Your task to perform on an android device: Search for the new Jordans on Nike.com Image 0: 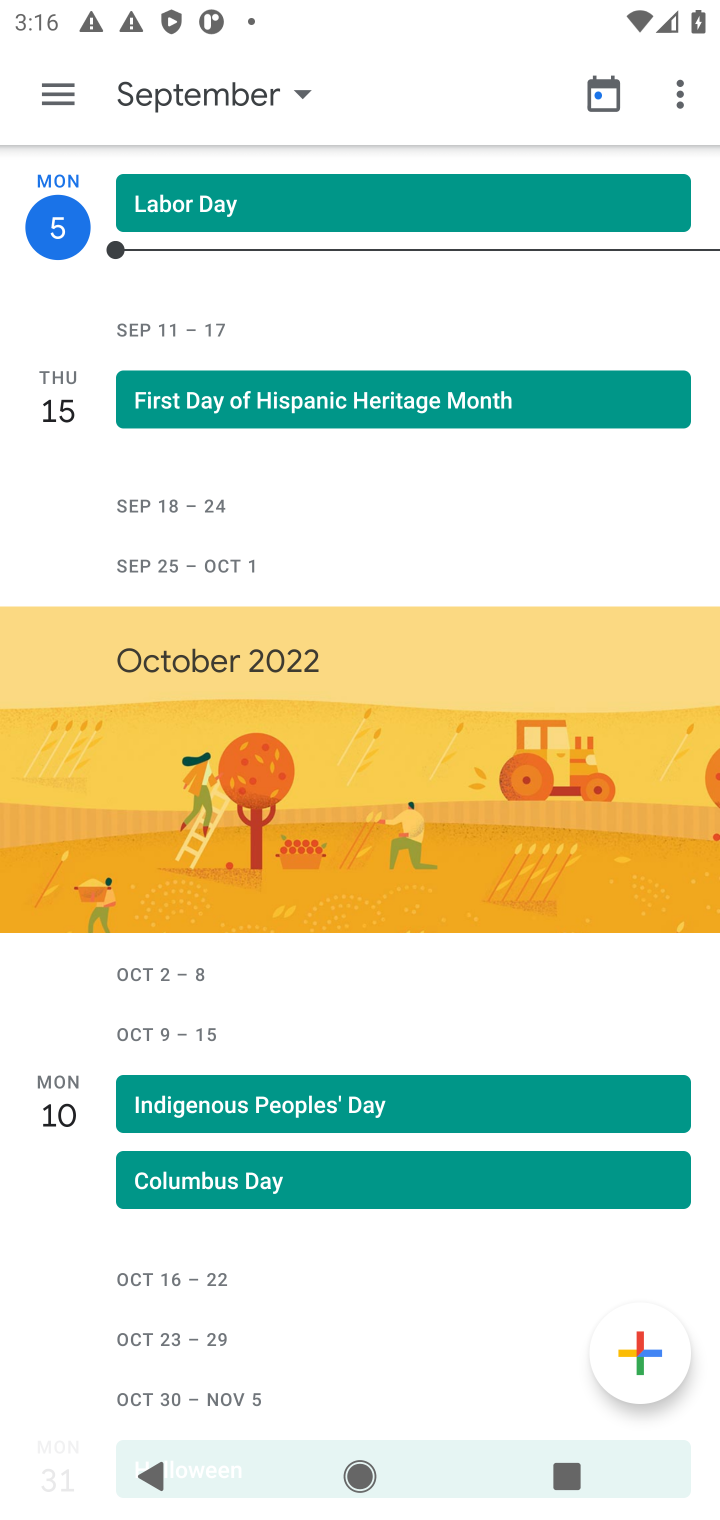
Step 0: press home button
Your task to perform on an android device: Search for the new Jordans on Nike.com Image 1: 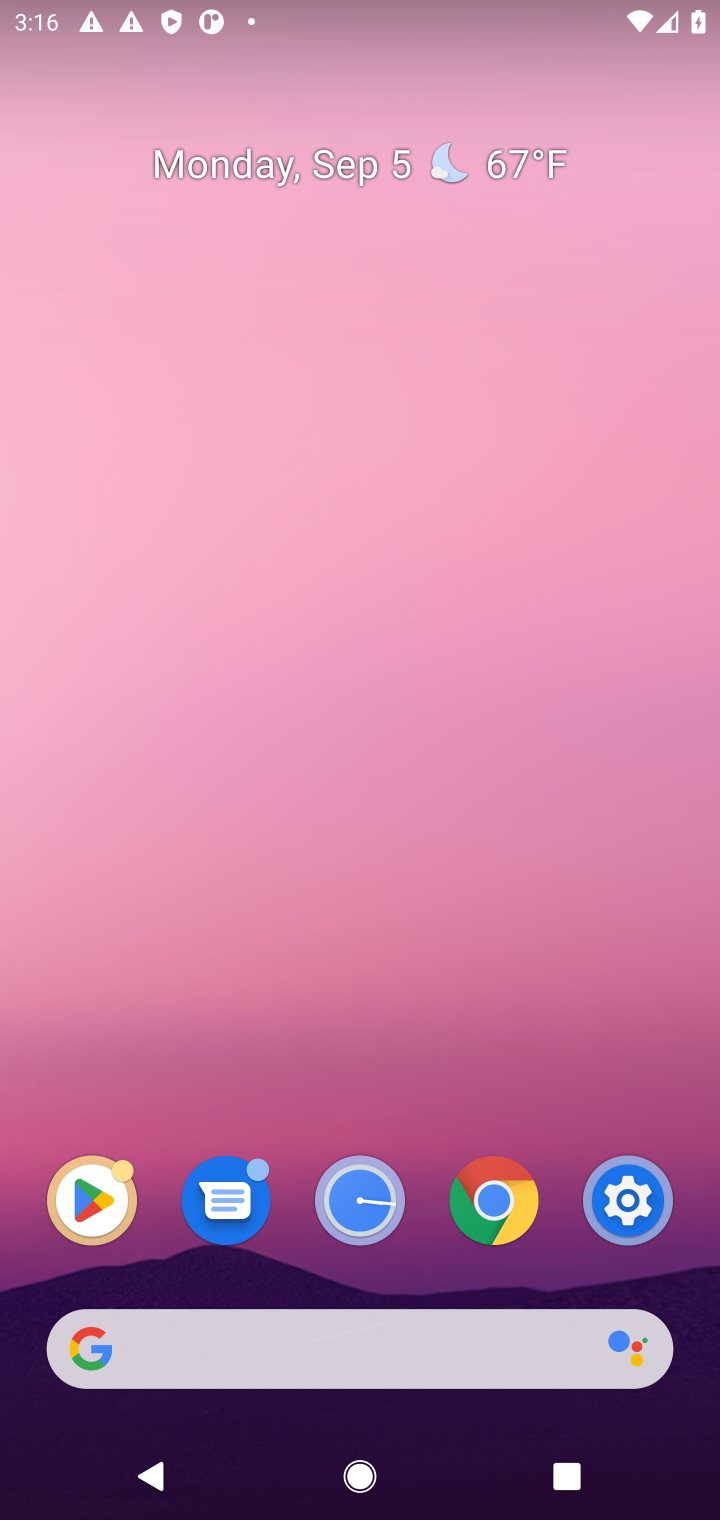
Step 1: click (412, 1351)
Your task to perform on an android device: Search for the new Jordans on Nike.com Image 2: 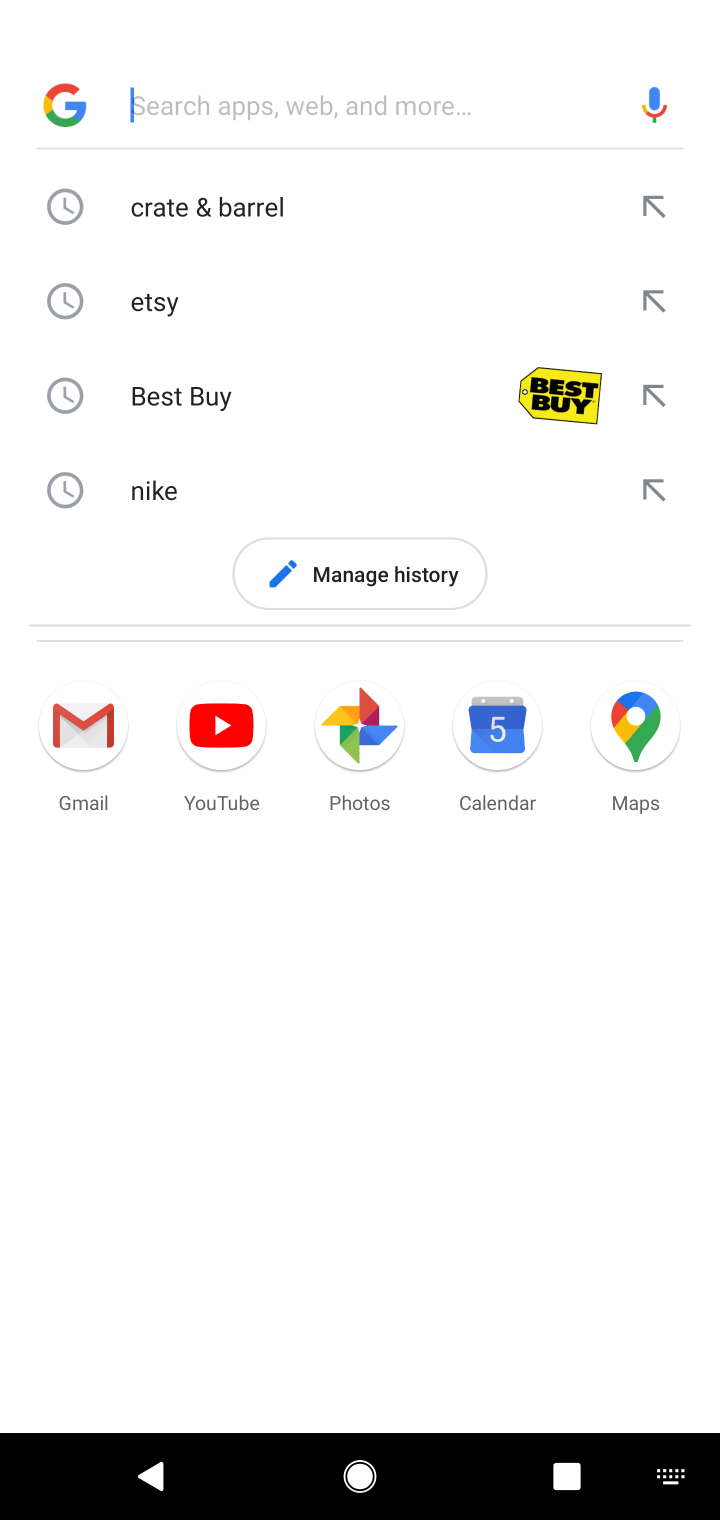
Step 2: type "nike.com"
Your task to perform on an android device: Search for the new Jordans on Nike.com Image 3: 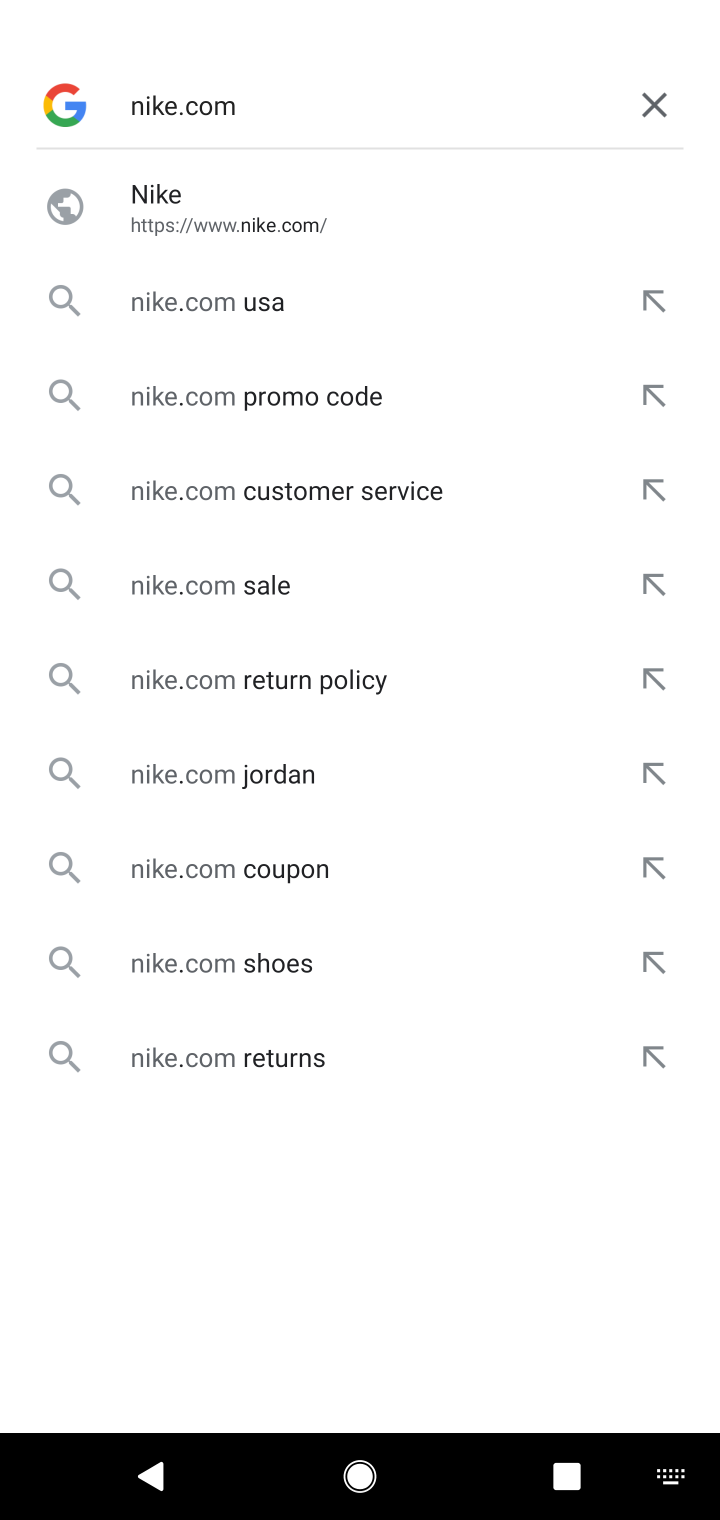
Step 3: click (135, 192)
Your task to perform on an android device: Search for the new Jordans on Nike.com Image 4: 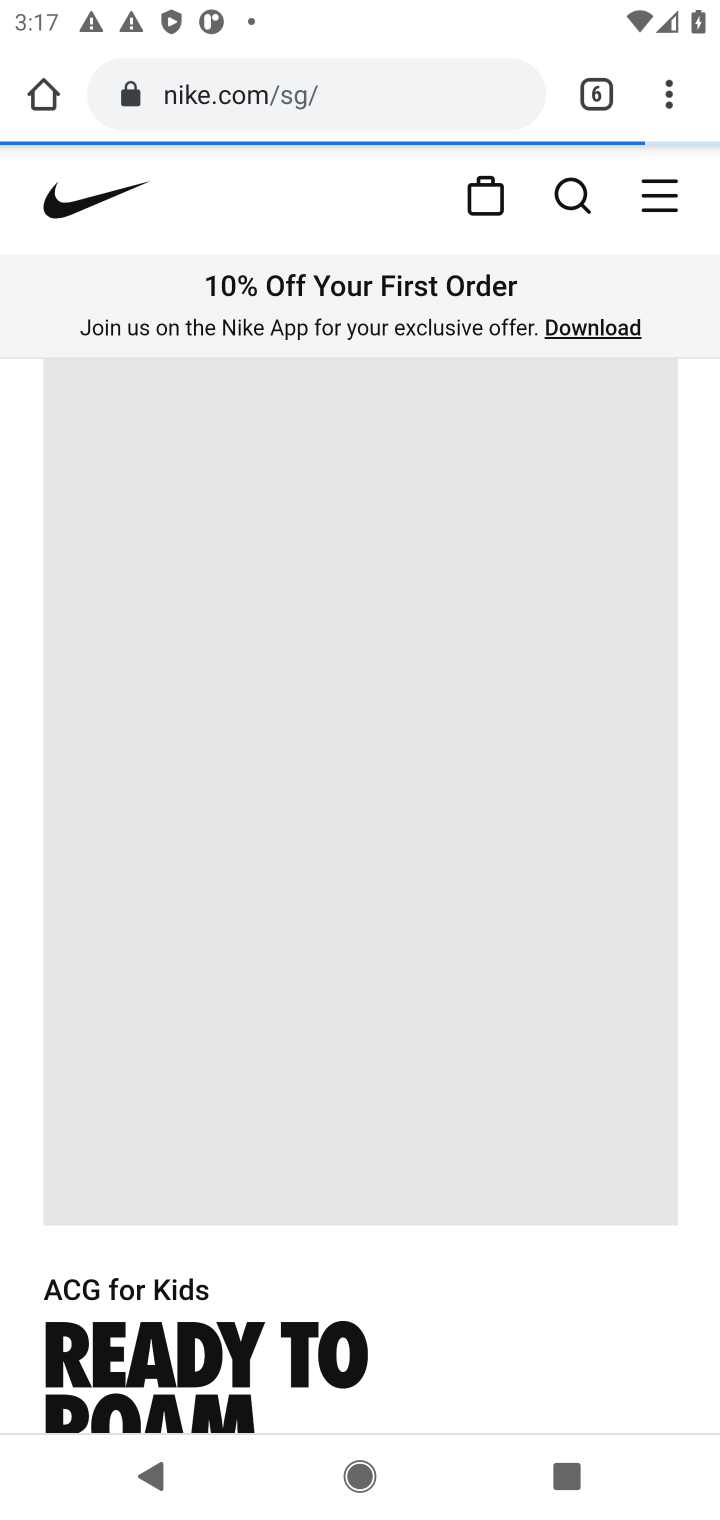
Step 4: click (569, 183)
Your task to perform on an android device: Search for the new Jordans on Nike.com Image 5: 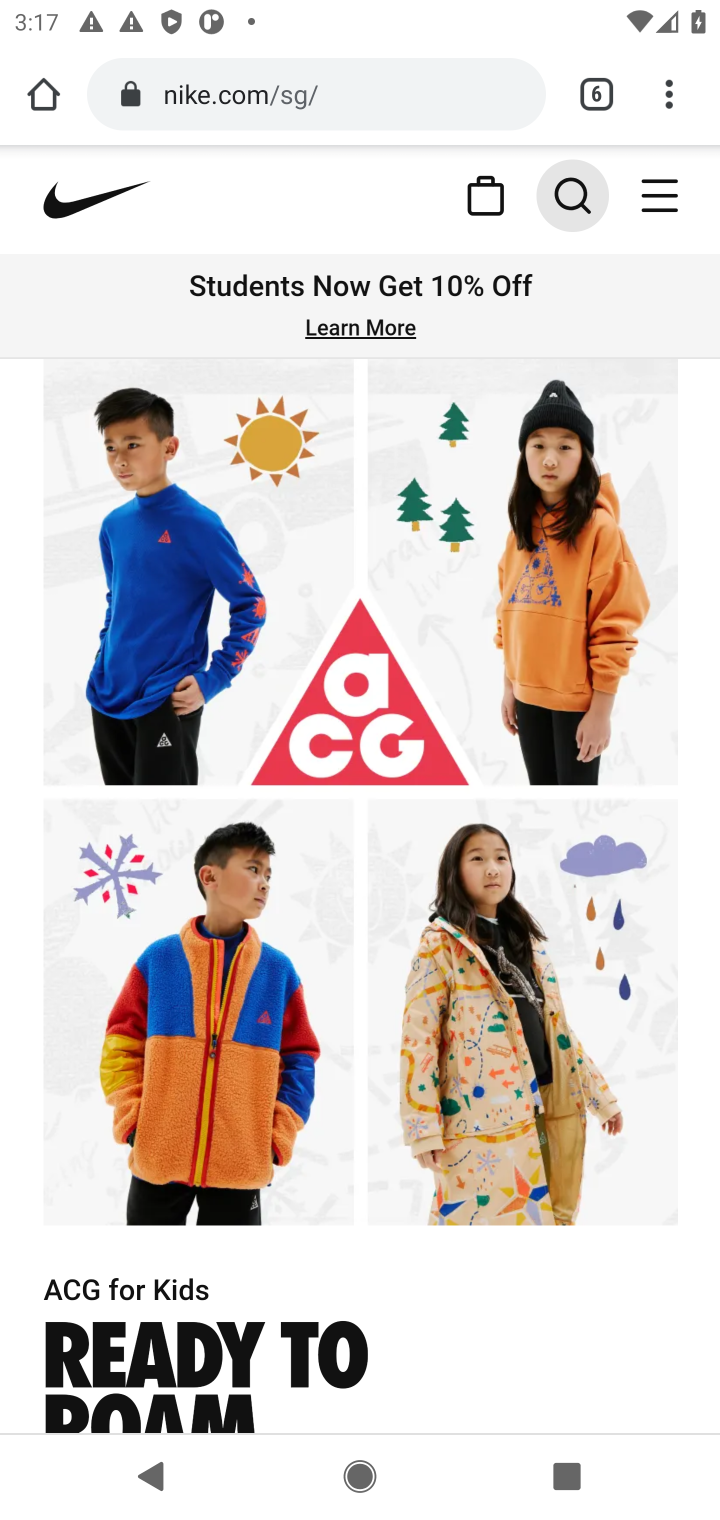
Step 5: click (578, 211)
Your task to perform on an android device: Search for the new Jordans on Nike.com Image 6: 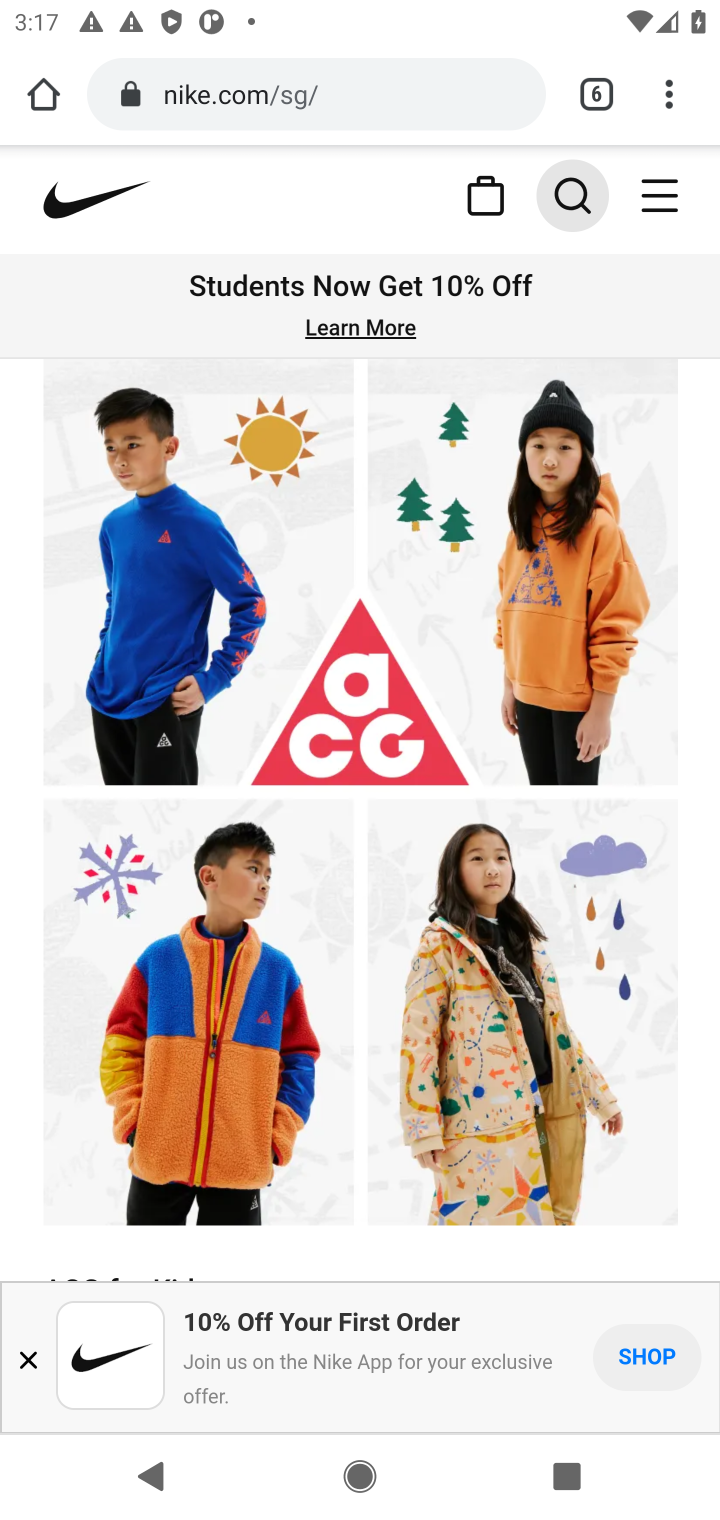
Step 6: click (576, 192)
Your task to perform on an android device: Search for the new Jordans on Nike.com Image 7: 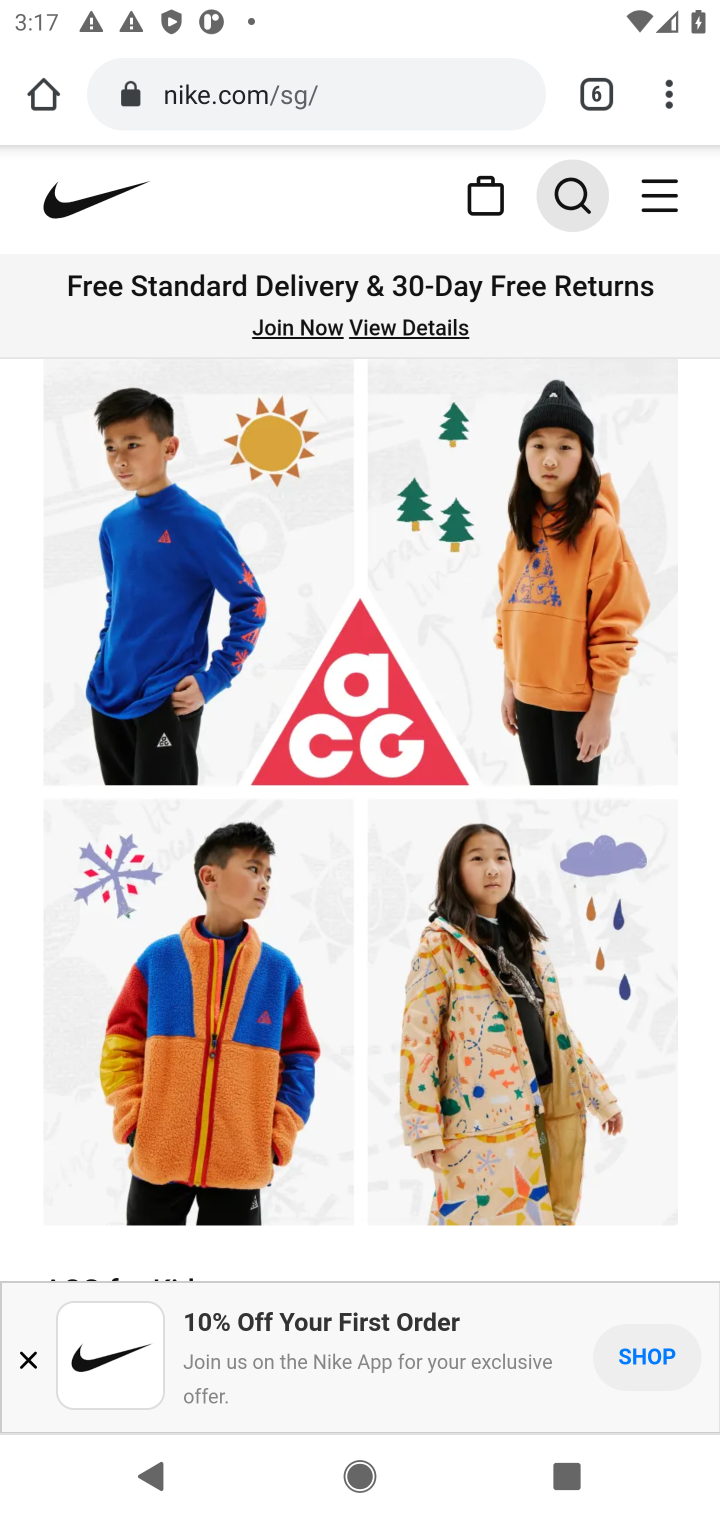
Step 7: click (554, 192)
Your task to perform on an android device: Search for the new Jordans on Nike.com Image 8: 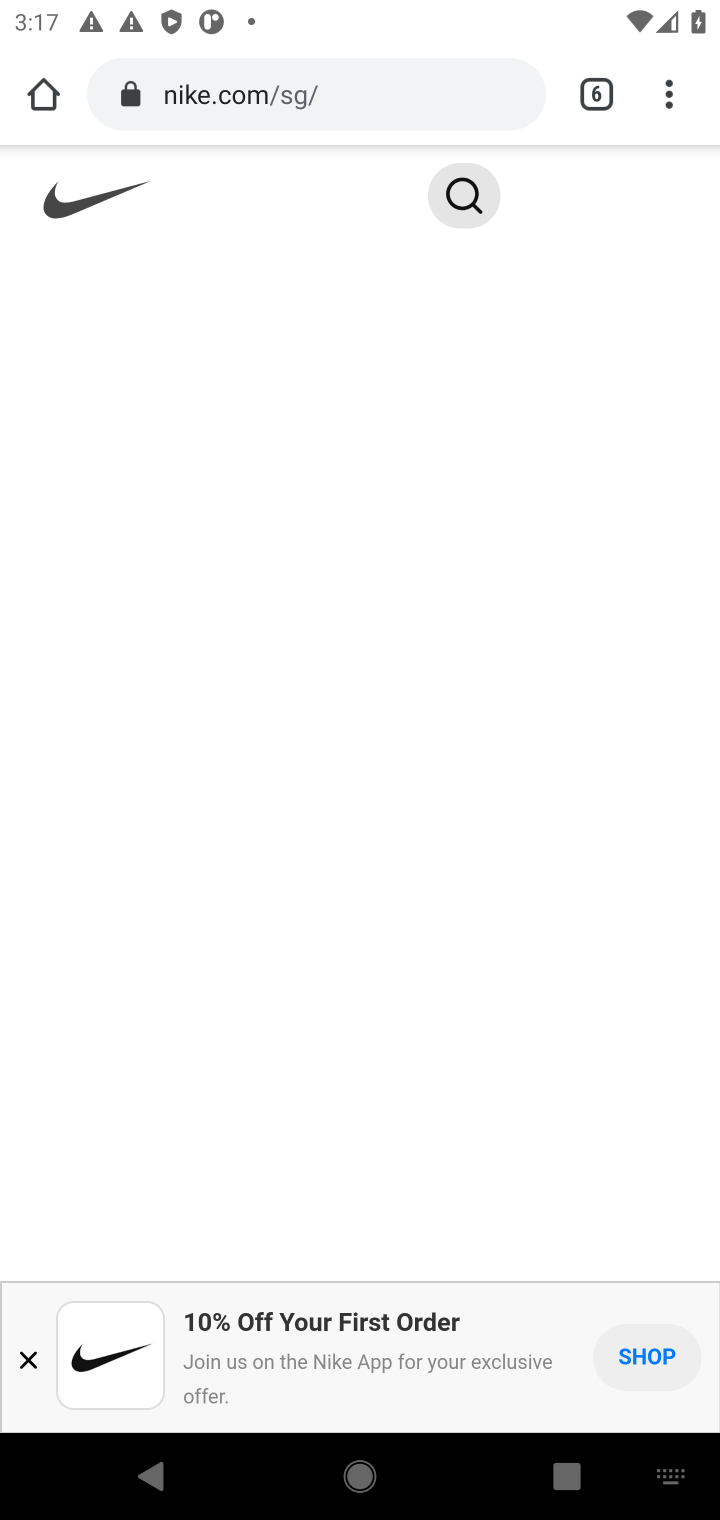
Step 8: click (575, 194)
Your task to perform on an android device: Search for the new Jordans on Nike.com Image 9: 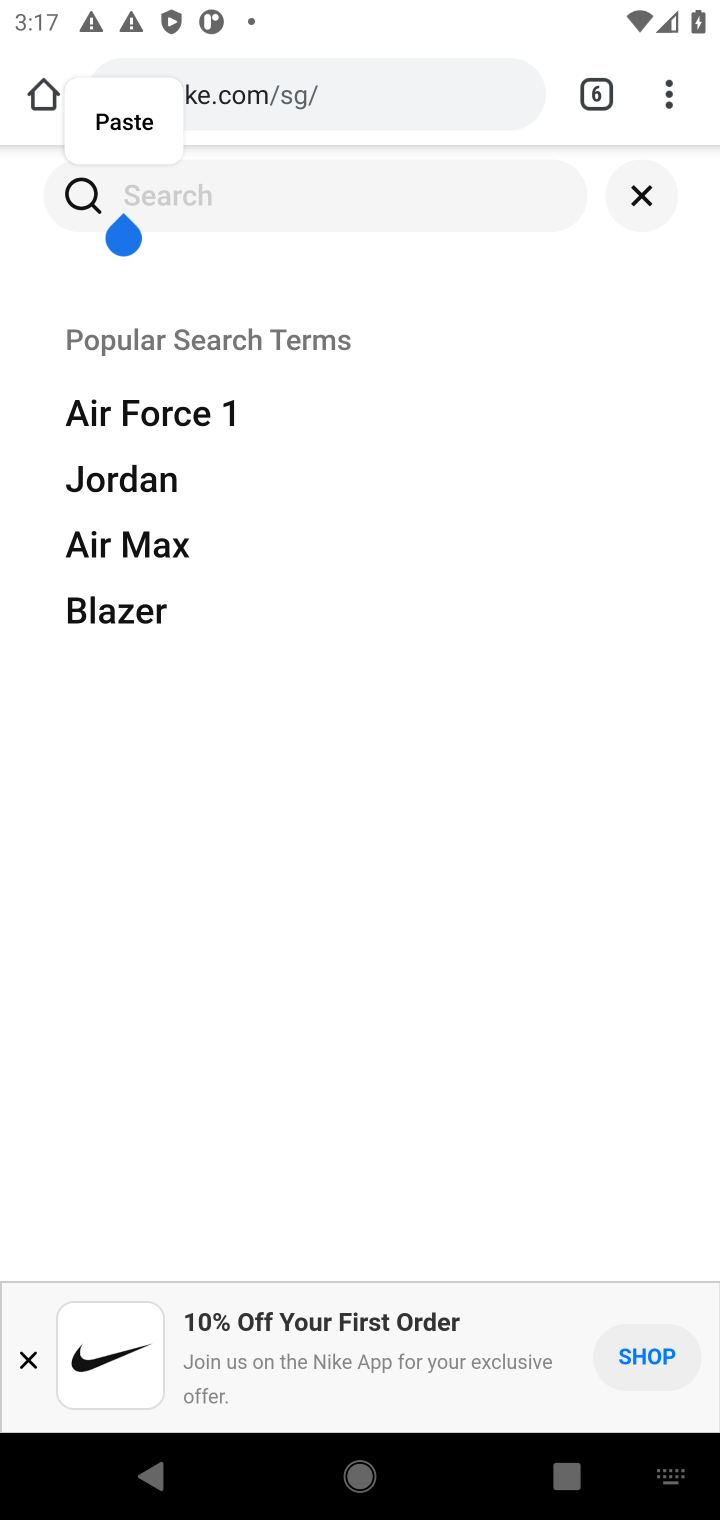
Step 9: type "new Jordans "
Your task to perform on an android device: Search for the new Jordans on Nike.com Image 10: 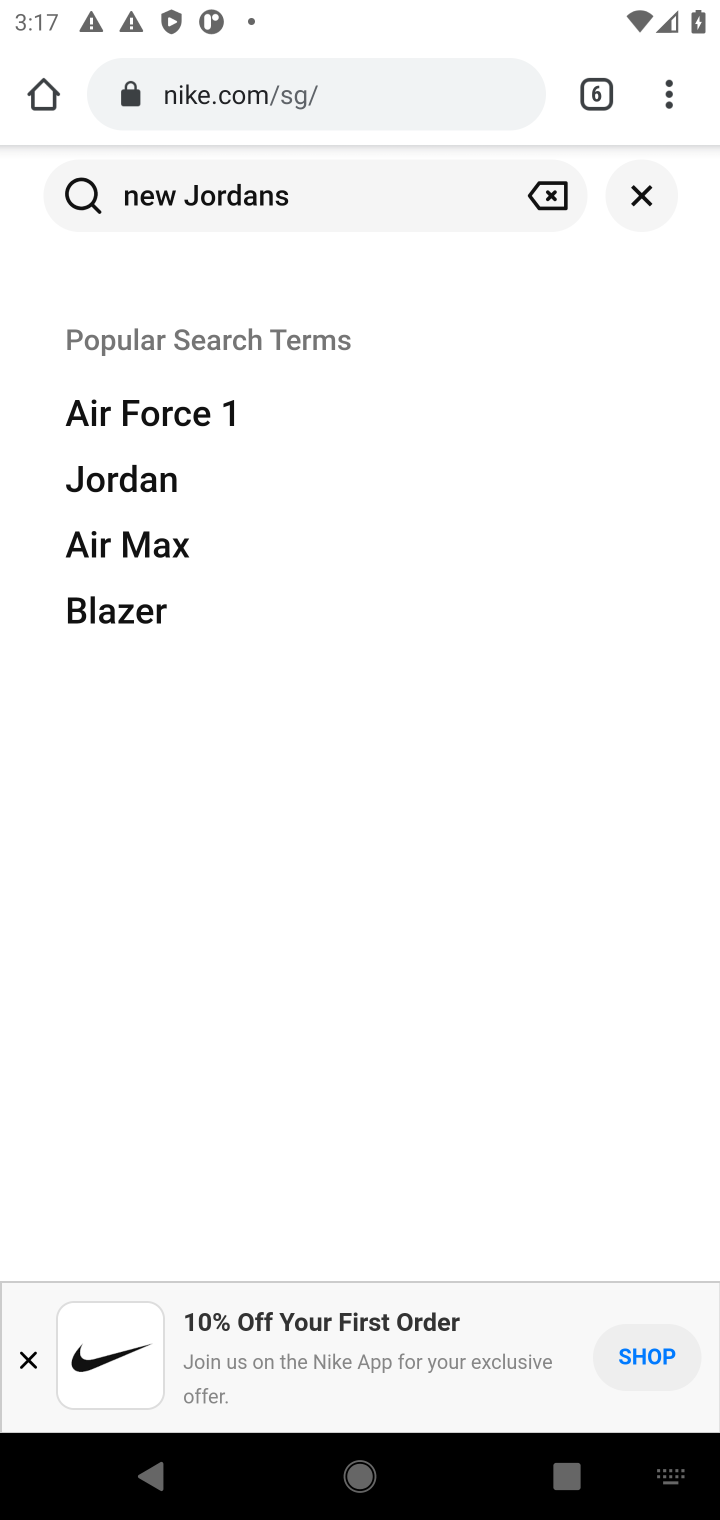
Step 10: click (79, 182)
Your task to perform on an android device: Search for the new Jordans on Nike.com Image 11: 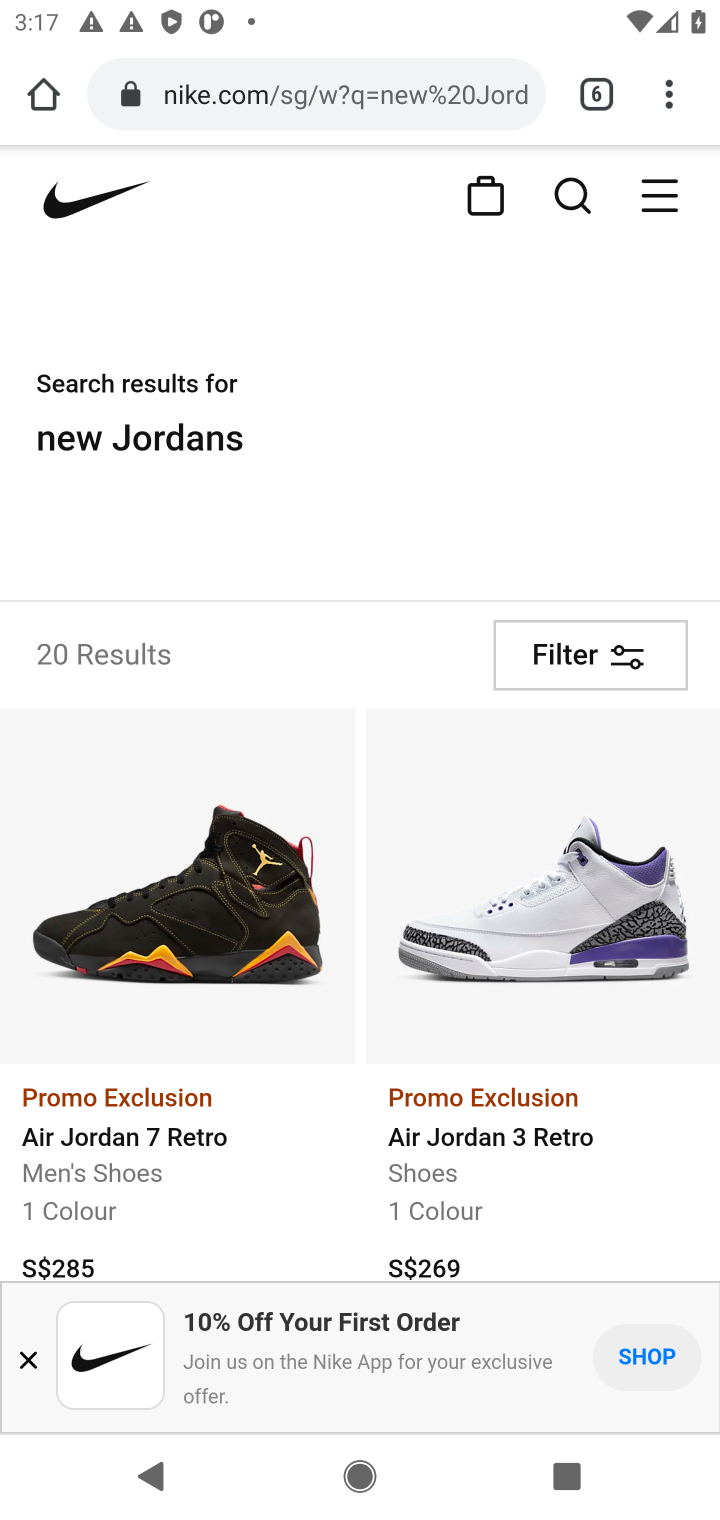
Step 11: task complete